Your task to perform on an android device: Open my contact list Image 0: 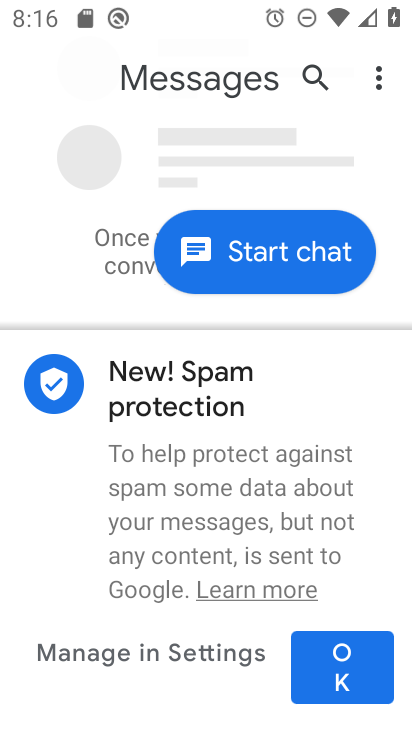
Step 0: press home button
Your task to perform on an android device: Open my contact list Image 1: 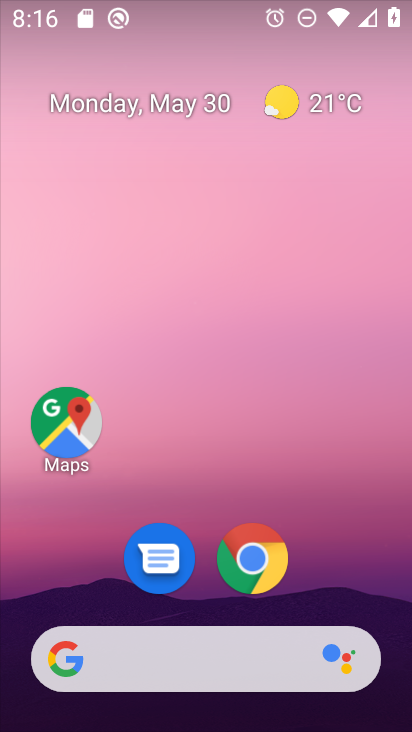
Step 1: drag from (337, 546) to (218, 73)
Your task to perform on an android device: Open my contact list Image 2: 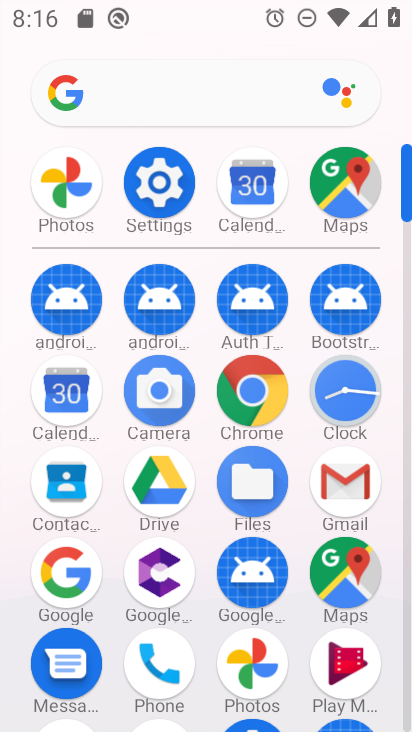
Step 2: click (59, 487)
Your task to perform on an android device: Open my contact list Image 3: 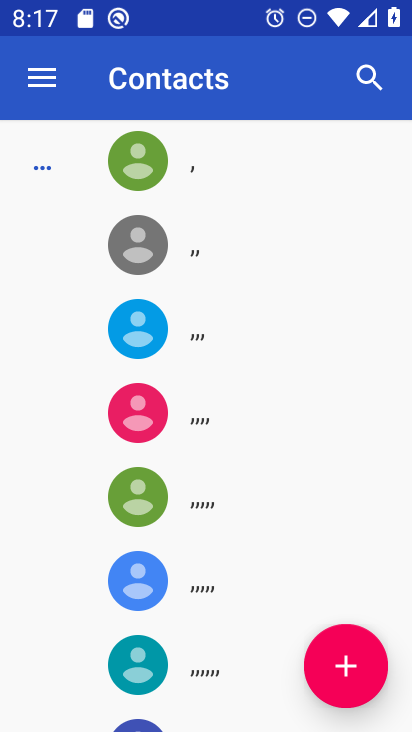
Step 3: click (347, 663)
Your task to perform on an android device: Open my contact list Image 4: 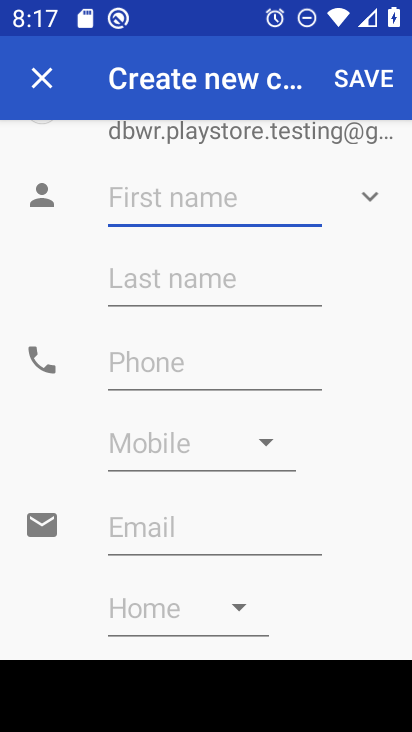
Step 4: click (174, 197)
Your task to perform on an android device: Open my contact list Image 5: 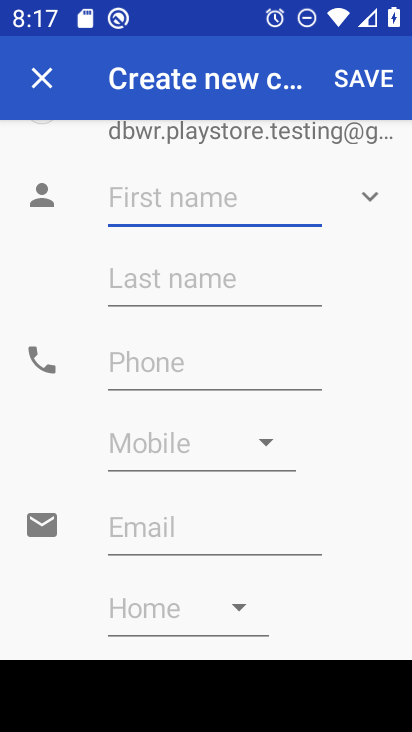
Step 5: type "jkhgfdghjk"
Your task to perform on an android device: Open my contact list Image 6: 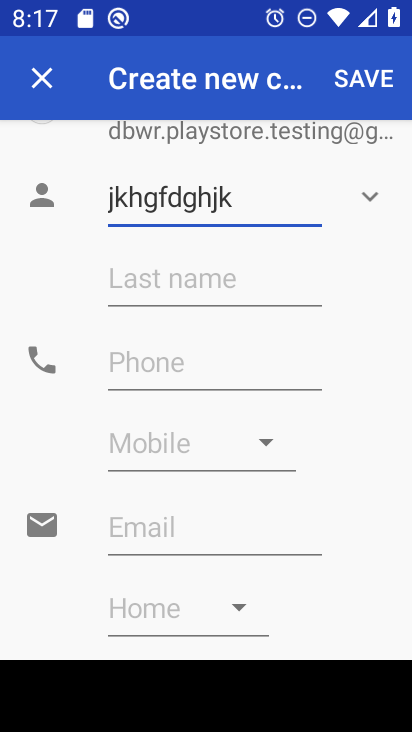
Step 6: click (171, 362)
Your task to perform on an android device: Open my contact list Image 7: 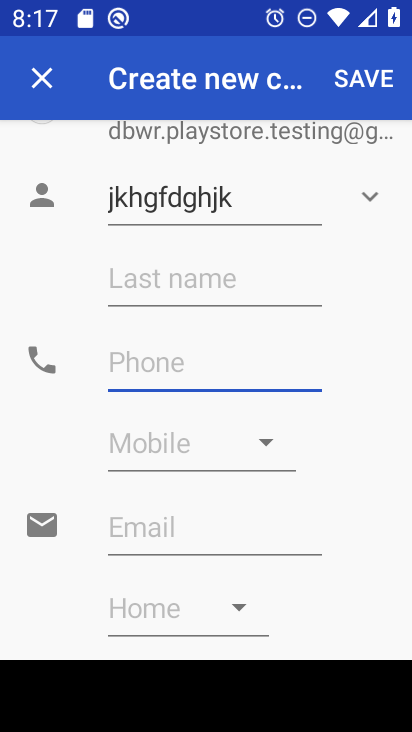
Step 7: type "i8756467586"
Your task to perform on an android device: Open my contact list Image 8: 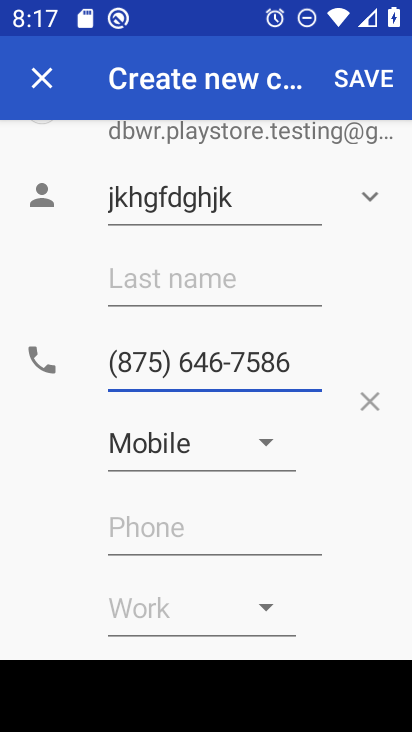
Step 8: click (356, 67)
Your task to perform on an android device: Open my contact list Image 9: 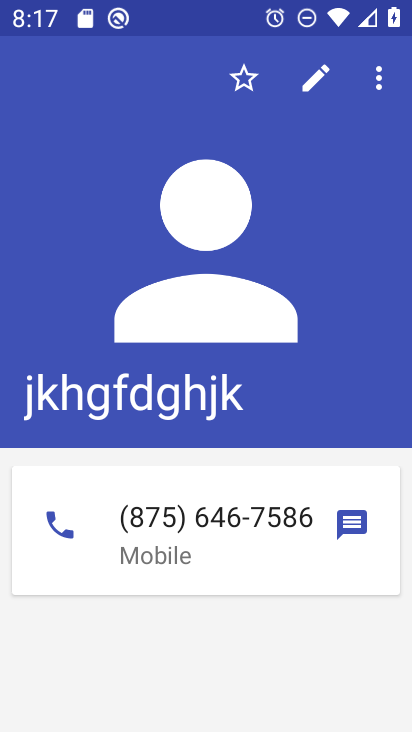
Step 9: task complete